Your task to perform on an android device: turn on improve location accuracy Image 0: 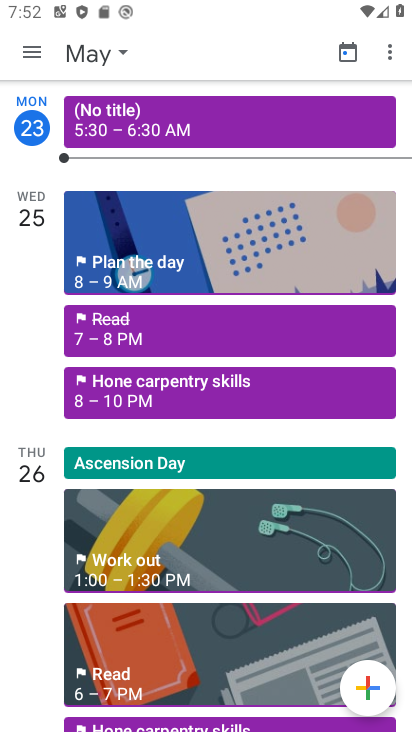
Step 0: press back button
Your task to perform on an android device: turn on improve location accuracy Image 1: 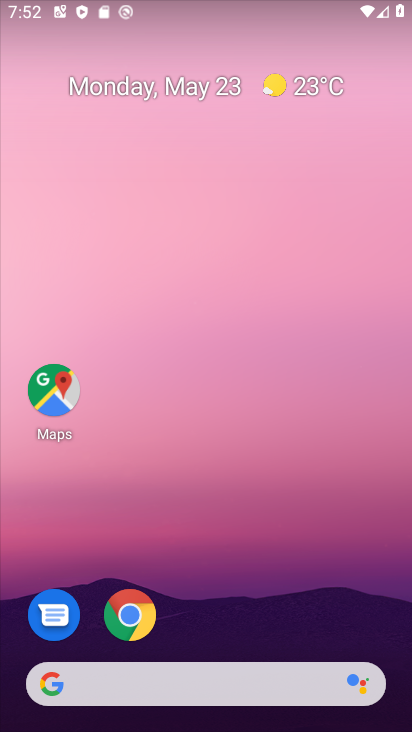
Step 1: drag from (257, 627) to (256, 187)
Your task to perform on an android device: turn on improve location accuracy Image 2: 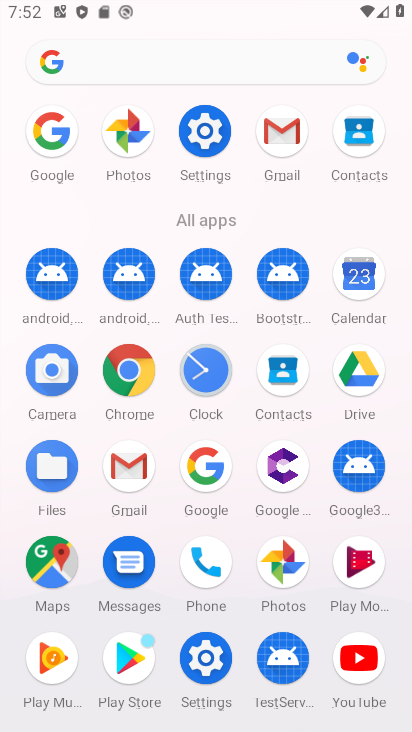
Step 2: click (204, 657)
Your task to perform on an android device: turn on improve location accuracy Image 3: 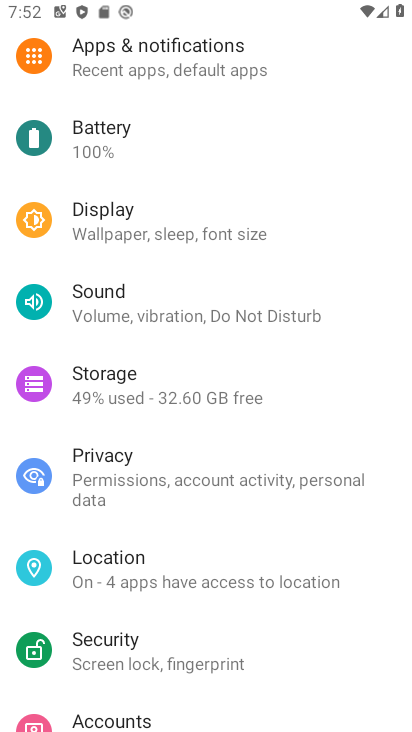
Step 3: click (115, 574)
Your task to perform on an android device: turn on improve location accuracy Image 4: 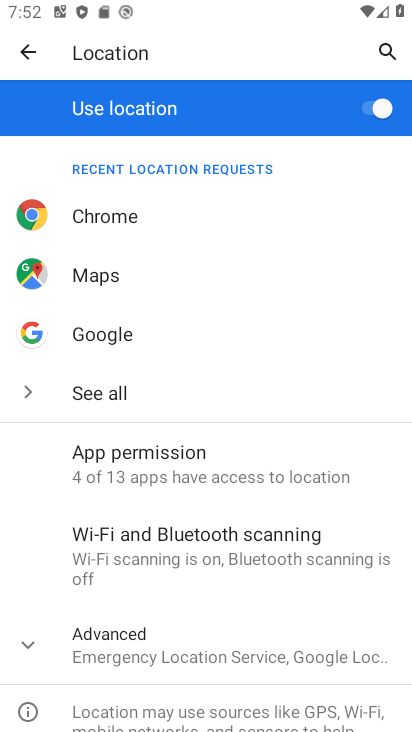
Step 4: click (151, 650)
Your task to perform on an android device: turn on improve location accuracy Image 5: 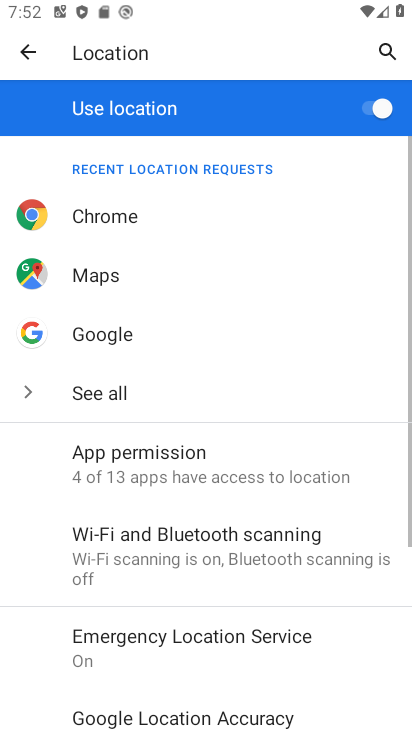
Step 5: drag from (154, 652) to (228, 517)
Your task to perform on an android device: turn on improve location accuracy Image 6: 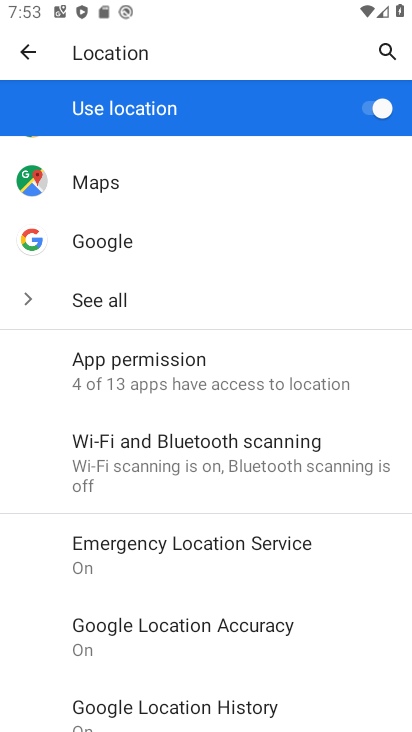
Step 6: click (219, 626)
Your task to perform on an android device: turn on improve location accuracy Image 7: 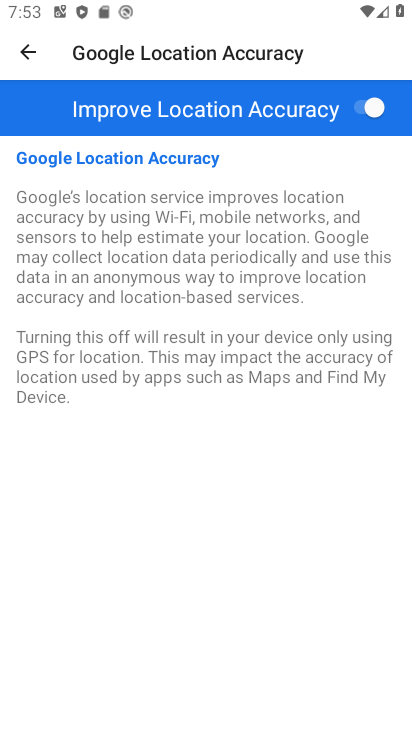
Step 7: task complete